Your task to perform on an android device: turn pop-ups on in chrome Image 0: 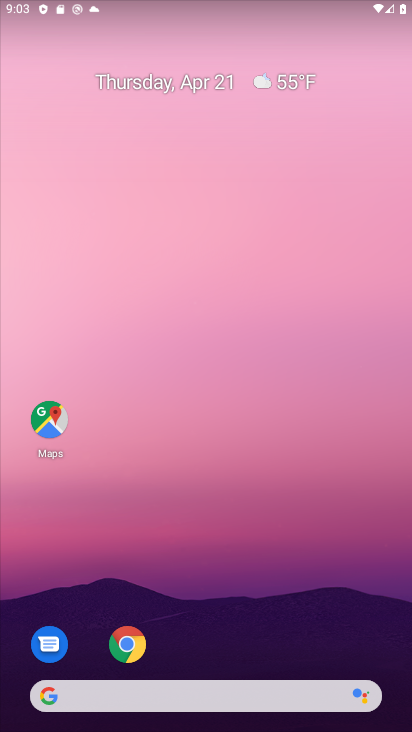
Step 0: drag from (219, 532) to (224, 157)
Your task to perform on an android device: turn pop-ups on in chrome Image 1: 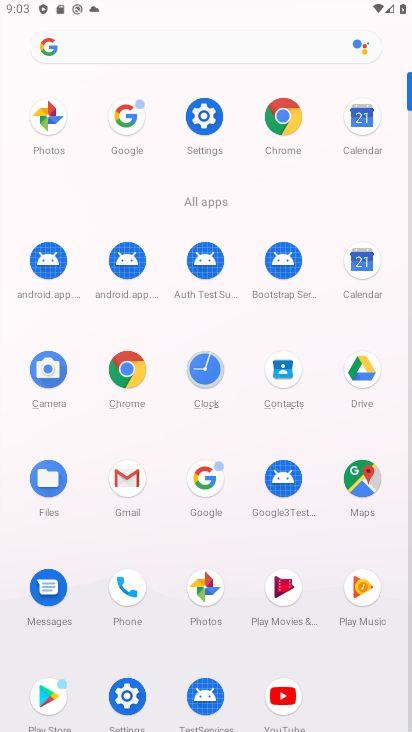
Step 1: click (136, 362)
Your task to perform on an android device: turn pop-ups on in chrome Image 2: 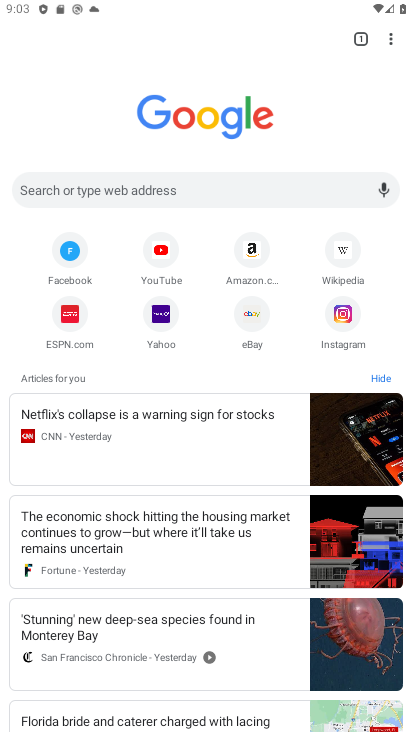
Step 2: drag from (396, 38) to (255, 358)
Your task to perform on an android device: turn pop-ups on in chrome Image 3: 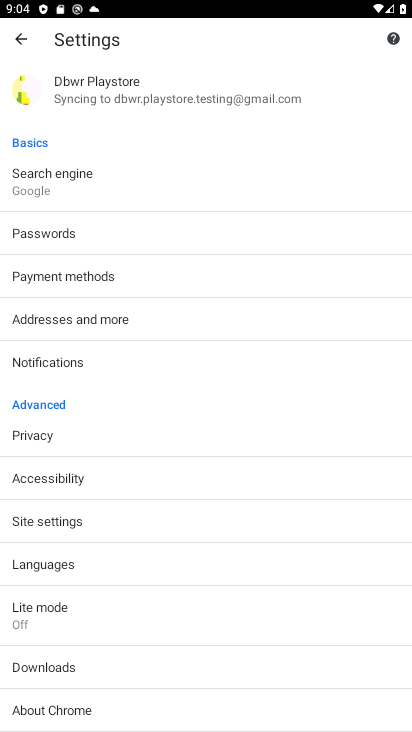
Step 3: click (63, 522)
Your task to perform on an android device: turn pop-ups on in chrome Image 4: 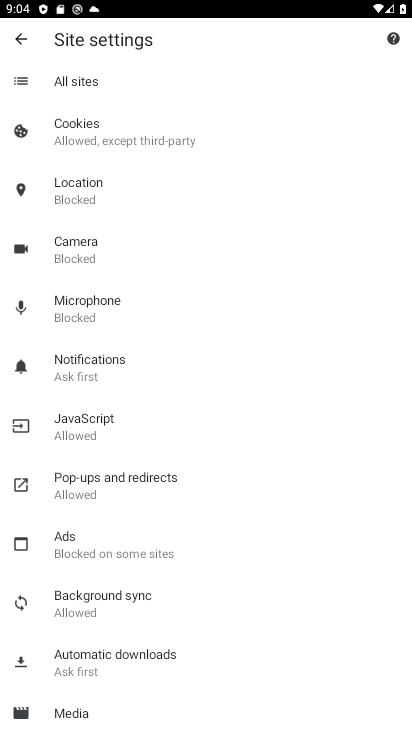
Step 4: click (86, 486)
Your task to perform on an android device: turn pop-ups on in chrome Image 5: 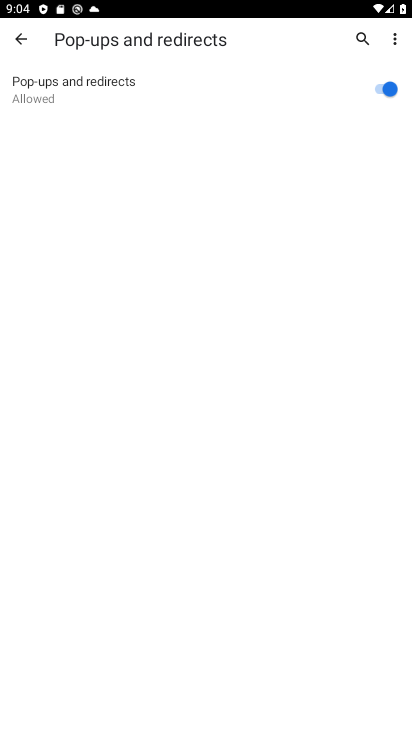
Step 5: task complete